Your task to perform on an android device: Open eBay Image 0: 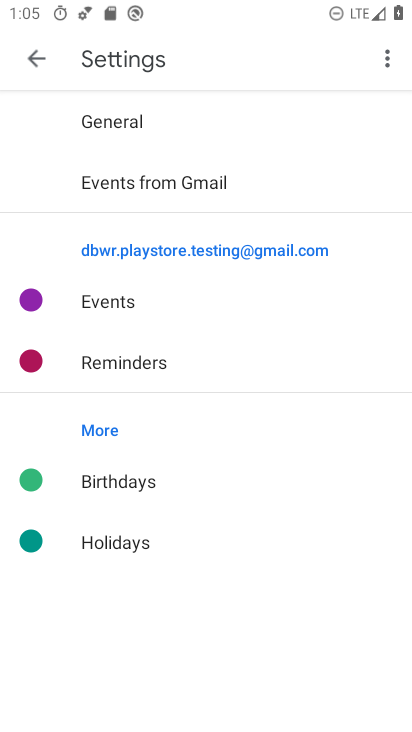
Step 0: press home button
Your task to perform on an android device: Open eBay Image 1: 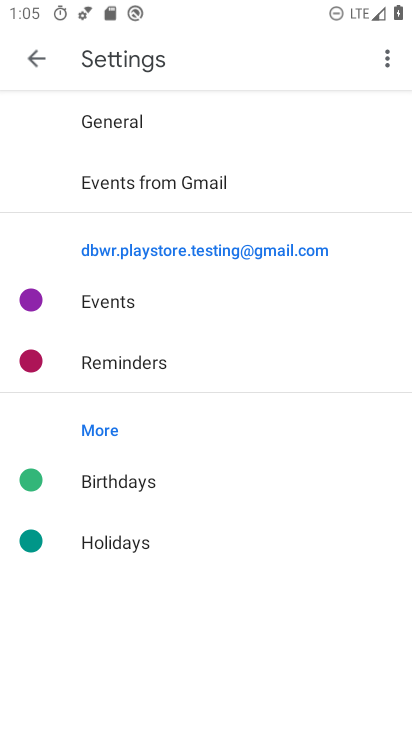
Step 1: press home button
Your task to perform on an android device: Open eBay Image 2: 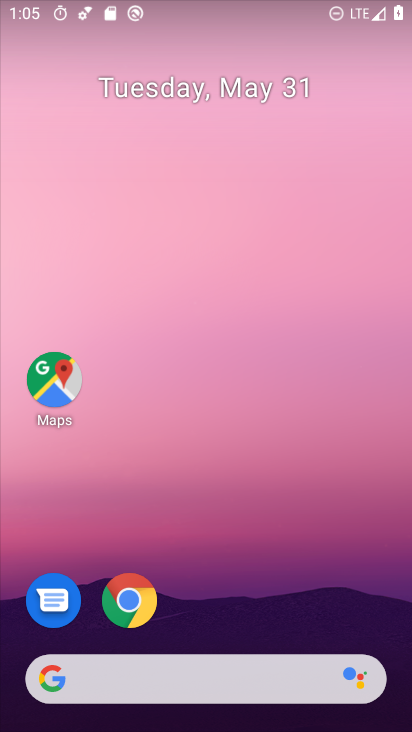
Step 2: click (130, 602)
Your task to perform on an android device: Open eBay Image 3: 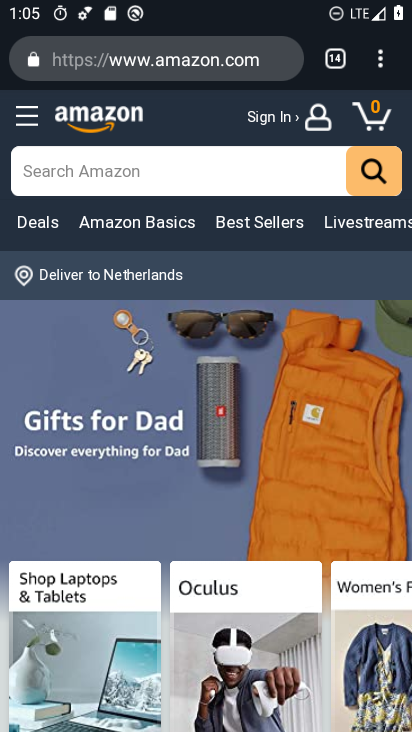
Step 3: click (380, 64)
Your task to perform on an android device: Open eBay Image 4: 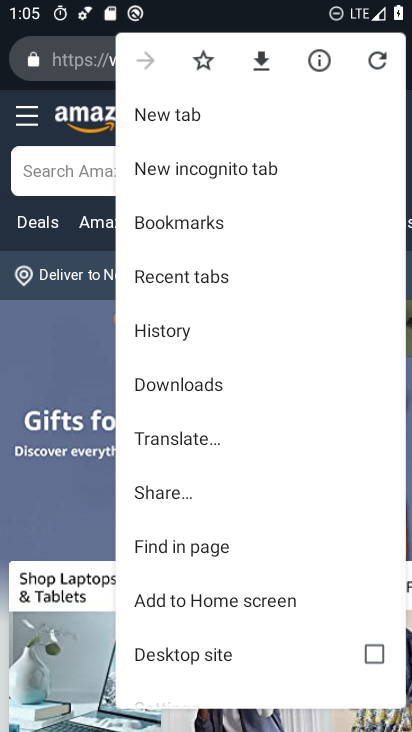
Step 4: click (188, 115)
Your task to perform on an android device: Open eBay Image 5: 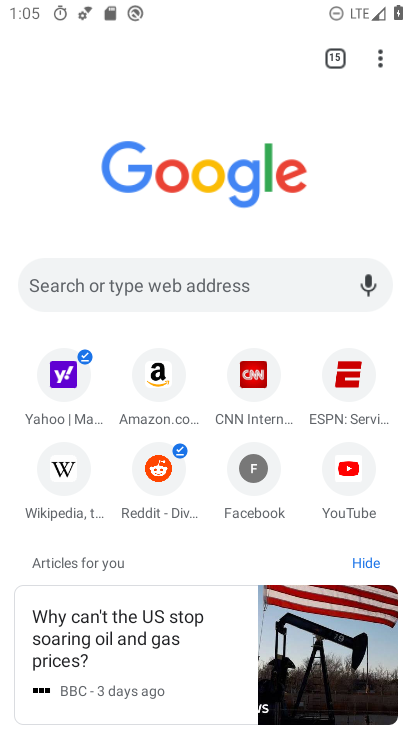
Step 5: click (278, 276)
Your task to perform on an android device: Open eBay Image 6: 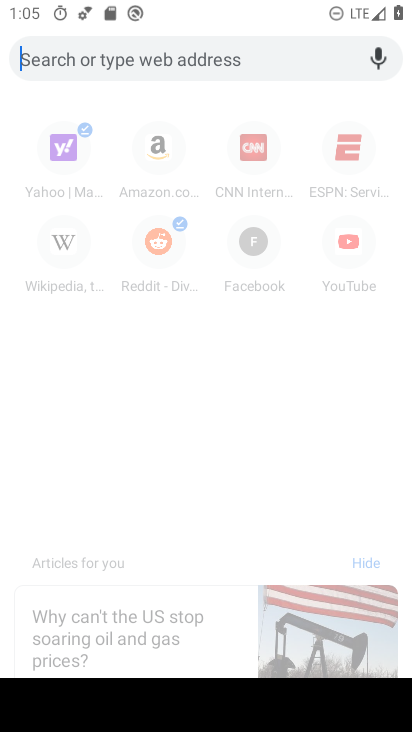
Step 6: type "eBay"
Your task to perform on an android device: Open eBay Image 7: 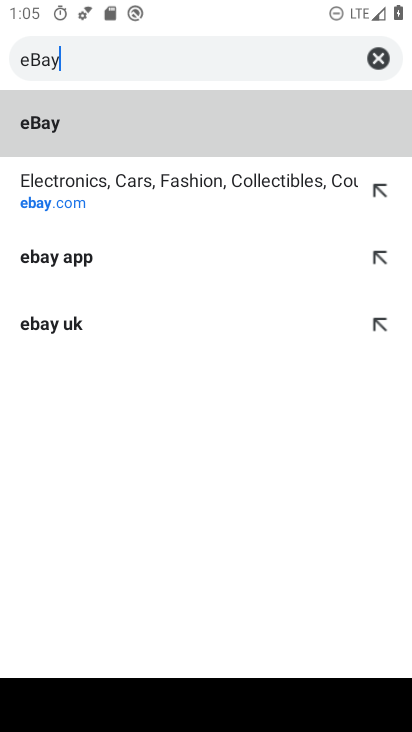
Step 7: click (61, 123)
Your task to perform on an android device: Open eBay Image 8: 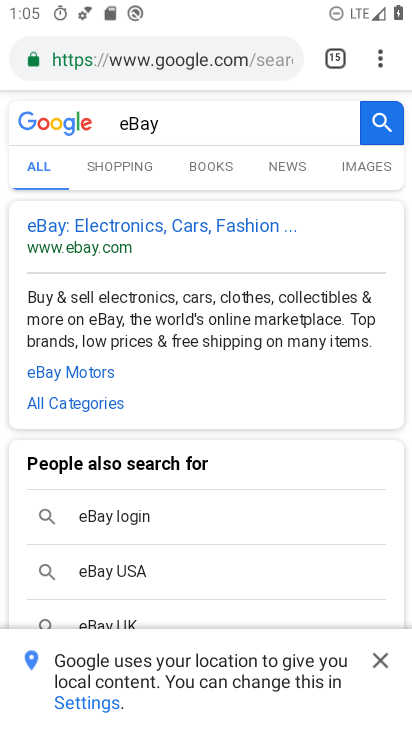
Step 8: click (138, 224)
Your task to perform on an android device: Open eBay Image 9: 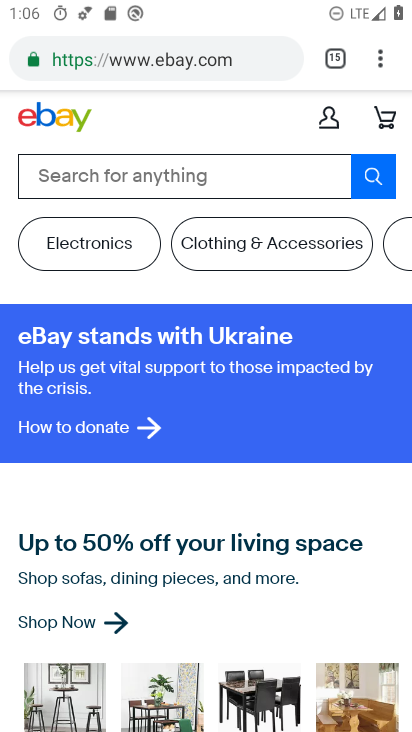
Step 9: task complete